Your task to perform on an android device: open app "LiveIn - Share Your Moment" (install if not already installed) and enter user name: "certifies@gmail.com" and password: "compartmented" Image 0: 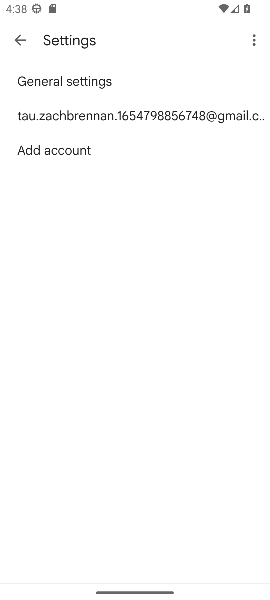
Step 0: press home button
Your task to perform on an android device: open app "LiveIn - Share Your Moment" (install if not already installed) and enter user name: "certifies@gmail.com" and password: "compartmented" Image 1: 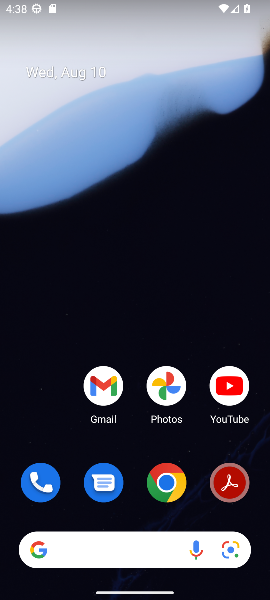
Step 1: drag from (142, 525) to (121, 110)
Your task to perform on an android device: open app "LiveIn - Share Your Moment" (install if not already installed) and enter user name: "certifies@gmail.com" and password: "compartmented" Image 2: 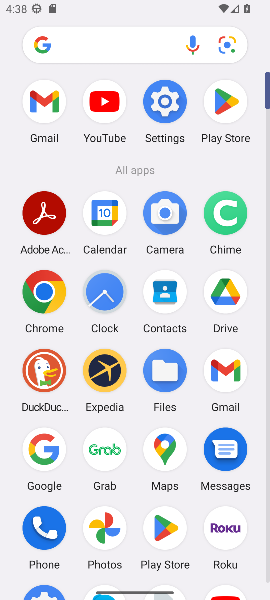
Step 2: click (222, 106)
Your task to perform on an android device: open app "LiveIn - Share Your Moment" (install if not already installed) and enter user name: "certifies@gmail.com" and password: "compartmented" Image 3: 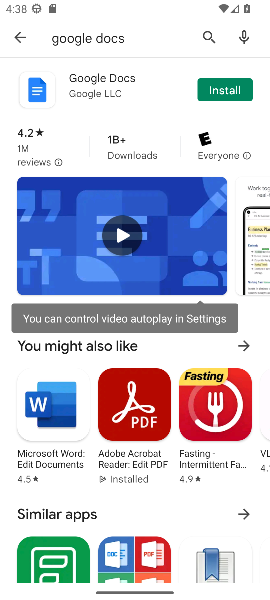
Step 3: click (210, 38)
Your task to perform on an android device: open app "LiveIn - Share Your Moment" (install if not already installed) and enter user name: "certifies@gmail.com" and password: "compartmented" Image 4: 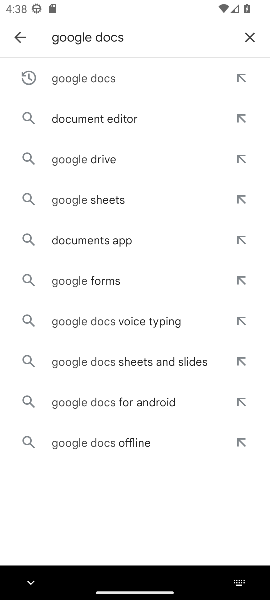
Step 4: click (250, 33)
Your task to perform on an android device: open app "LiveIn - Share Your Moment" (install if not already installed) and enter user name: "certifies@gmail.com" and password: "compartmented" Image 5: 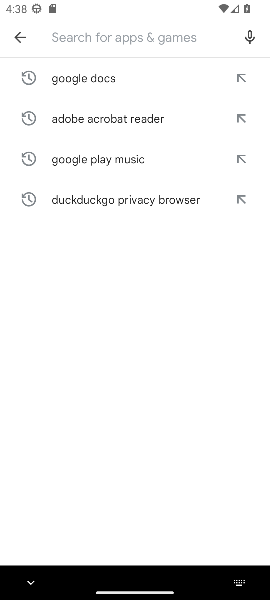
Step 5: type "LiveIn - Share Your Moment"
Your task to perform on an android device: open app "LiveIn - Share Your Moment" (install if not already installed) and enter user name: "certifies@gmail.com" and password: "compartmented" Image 6: 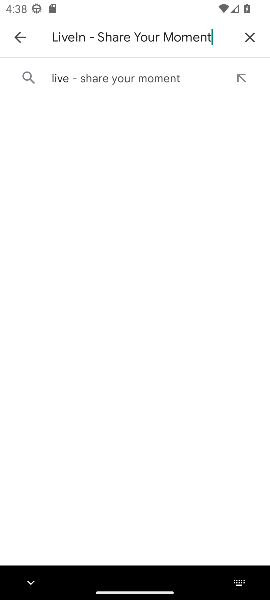
Step 6: click (112, 82)
Your task to perform on an android device: open app "LiveIn - Share Your Moment" (install if not already installed) and enter user name: "certifies@gmail.com" and password: "compartmented" Image 7: 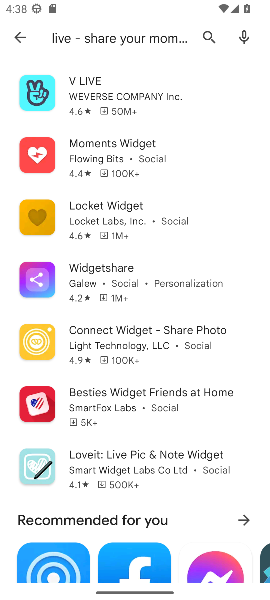
Step 7: task complete